Your task to perform on an android device: Open calendar and show me the first week of next month Image 0: 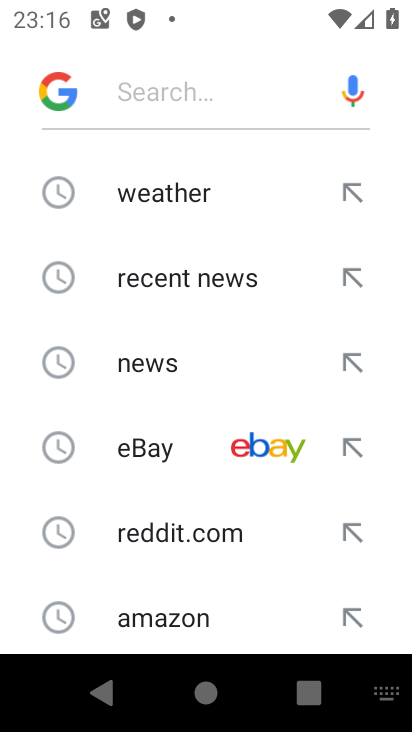
Step 0: press back button
Your task to perform on an android device: Open calendar and show me the first week of next month Image 1: 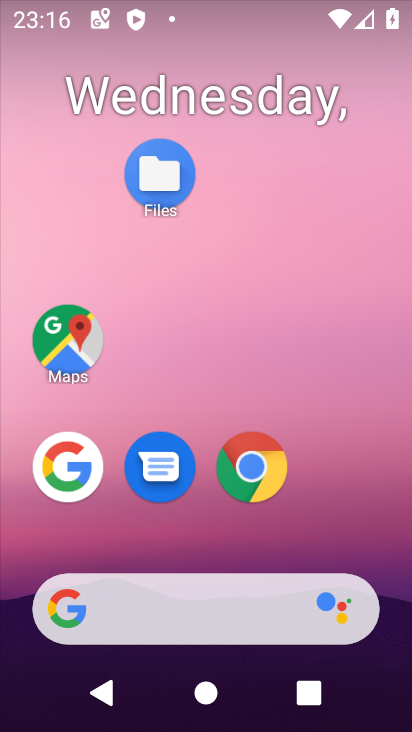
Step 1: drag from (225, 543) to (159, 62)
Your task to perform on an android device: Open calendar and show me the first week of next month Image 2: 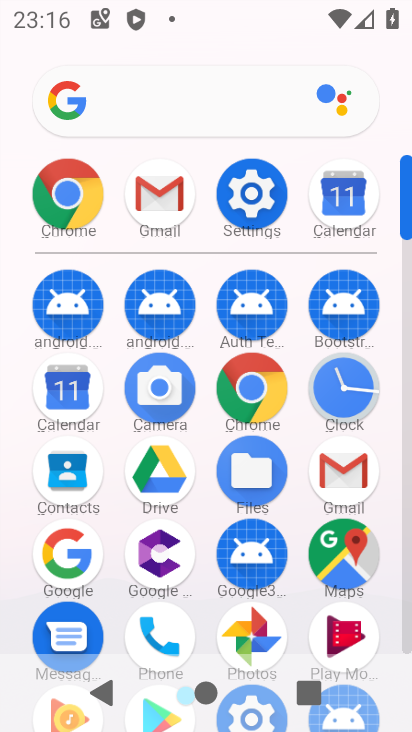
Step 2: click (346, 201)
Your task to perform on an android device: Open calendar and show me the first week of next month Image 3: 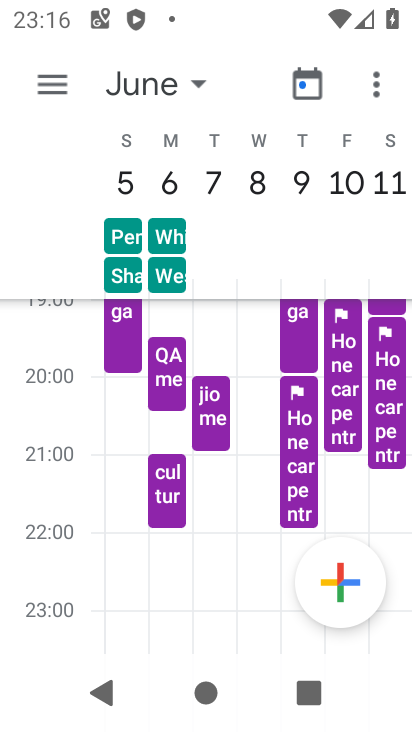
Step 3: task complete